Your task to perform on an android device: Open notification settings Image 0: 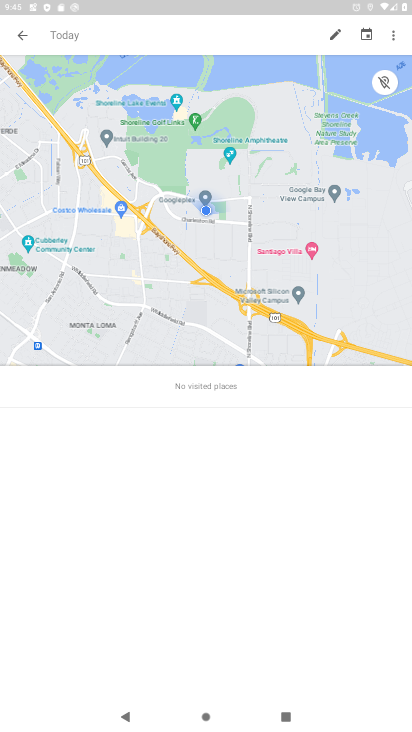
Step 0: press home button
Your task to perform on an android device: Open notification settings Image 1: 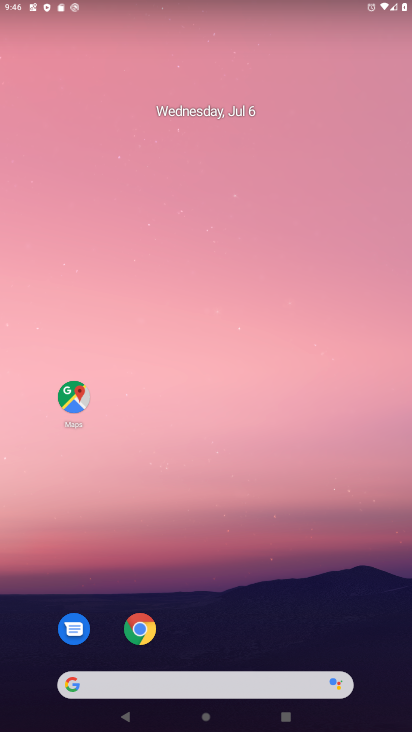
Step 1: drag from (50, 574) to (239, 99)
Your task to perform on an android device: Open notification settings Image 2: 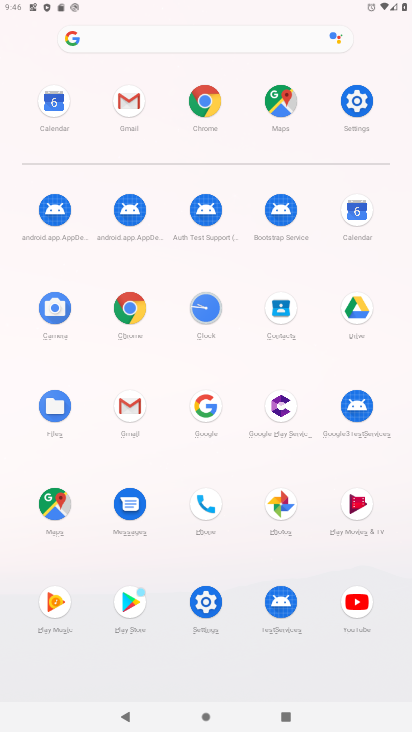
Step 2: click (365, 107)
Your task to perform on an android device: Open notification settings Image 3: 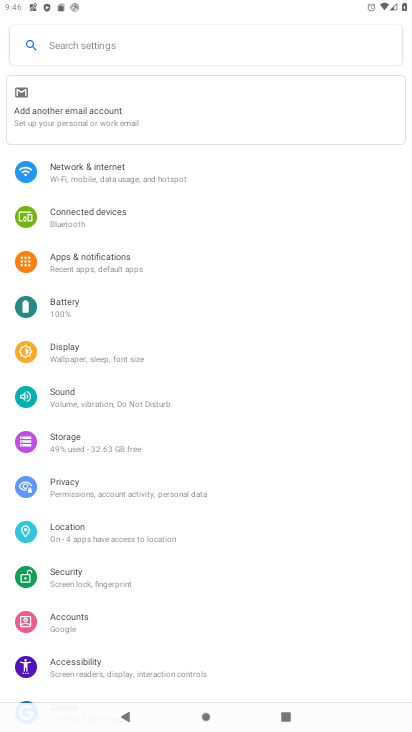
Step 3: click (135, 264)
Your task to perform on an android device: Open notification settings Image 4: 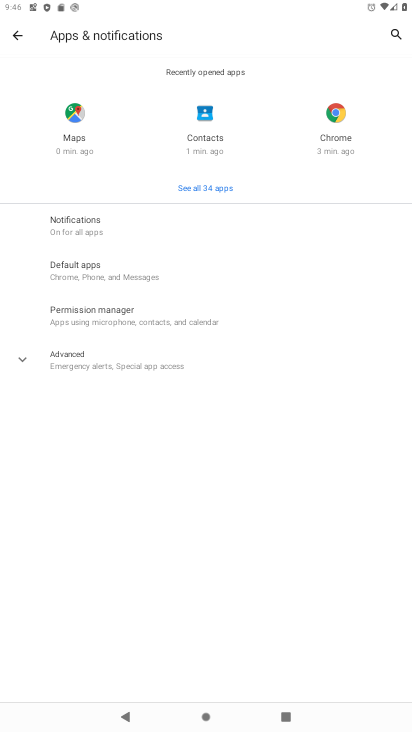
Step 4: click (66, 235)
Your task to perform on an android device: Open notification settings Image 5: 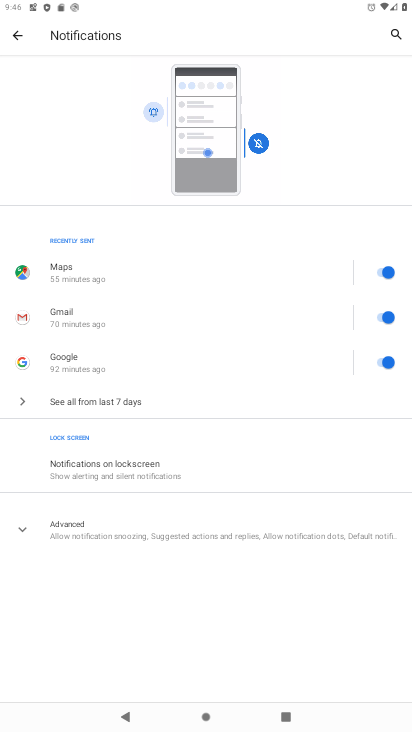
Step 5: task complete